Your task to perform on an android device: Open accessibility settings Image 0: 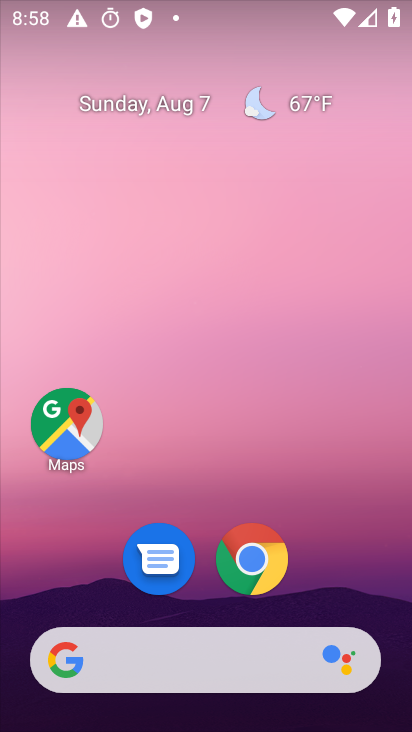
Step 0: drag from (245, 647) to (210, 51)
Your task to perform on an android device: Open accessibility settings Image 1: 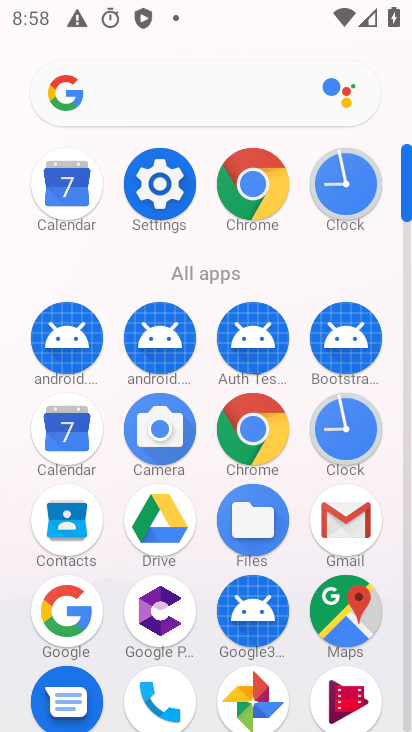
Step 1: click (160, 167)
Your task to perform on an android device: Open accessibility settings Image 2: 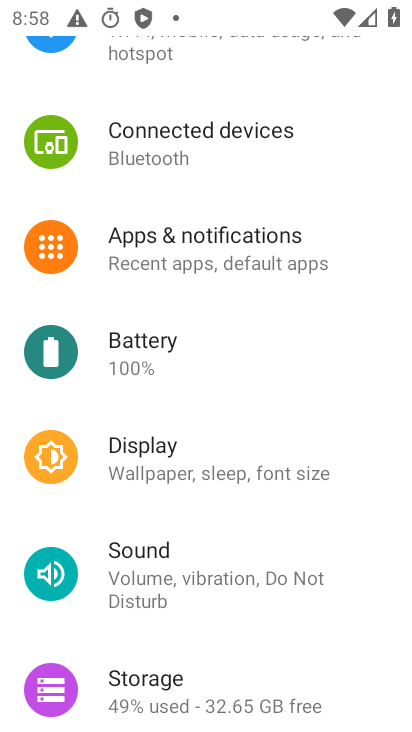
Step 2: drag from (359, 630) to (332, 4)
Your task to perform on an android device: Open accessibility settings Image 3: 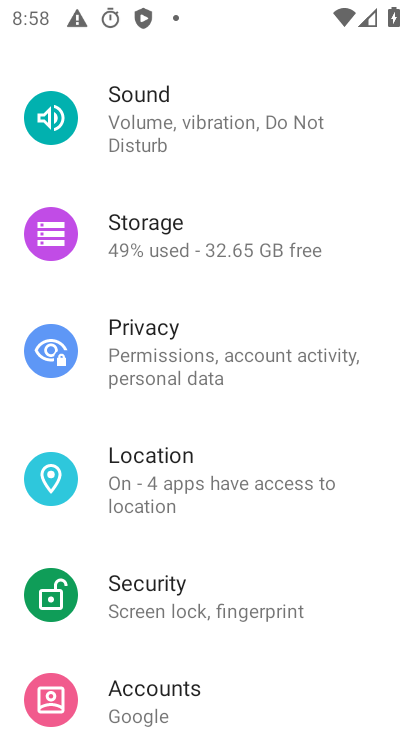
Step 3: drag from (362, 625) to (376, 45)
Your task to perform on an android device: Open accessibility settings Image 4: 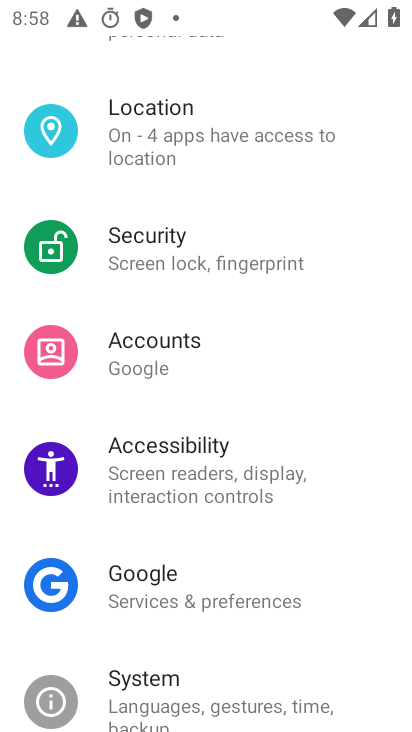
Step 4: click (186, 470)
Your task to perform on an android device: Open accessibility settings Image 5: 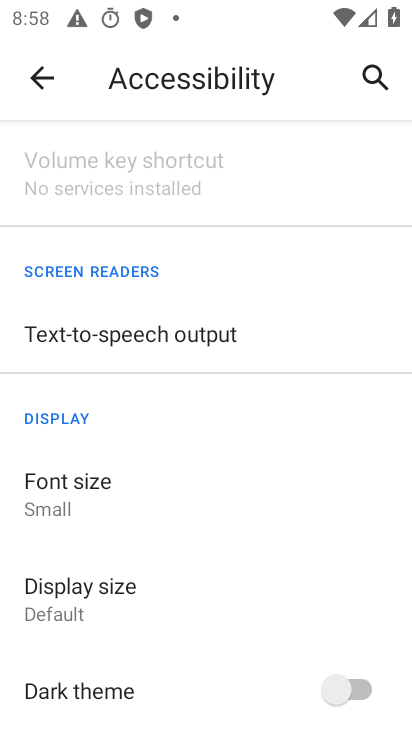
Step 5: task complete